Your task to perform on an android device: set the stopwatch Image 0: 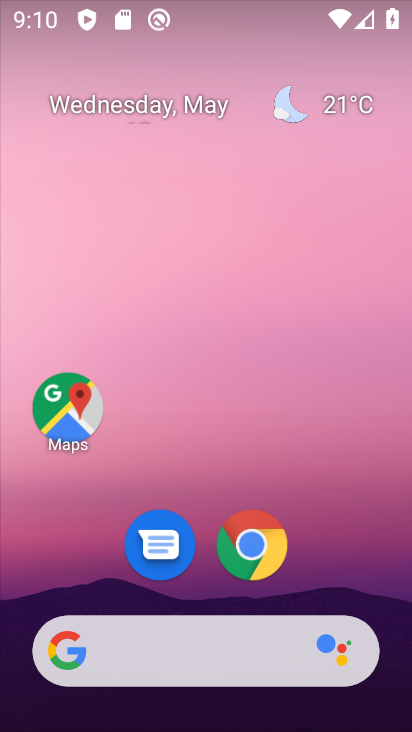
Step 0: drag from (308, 583) to (285, 12)
Your task to perform on an android device: set the stopwatch Image 1: 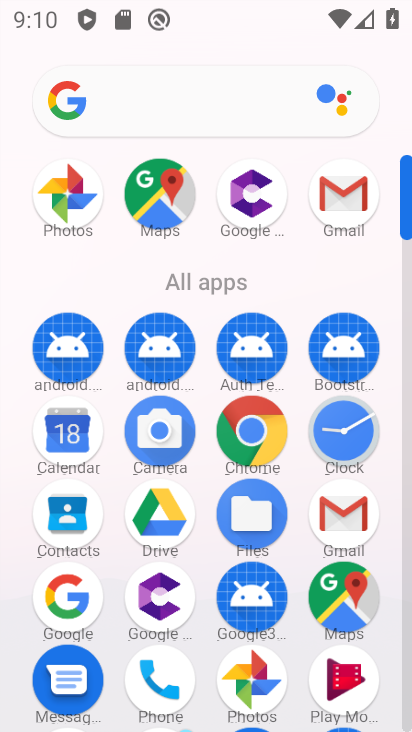
Step 1: click (341, 440)
Your task to perform on an android device: set the stopwatch Image 2: 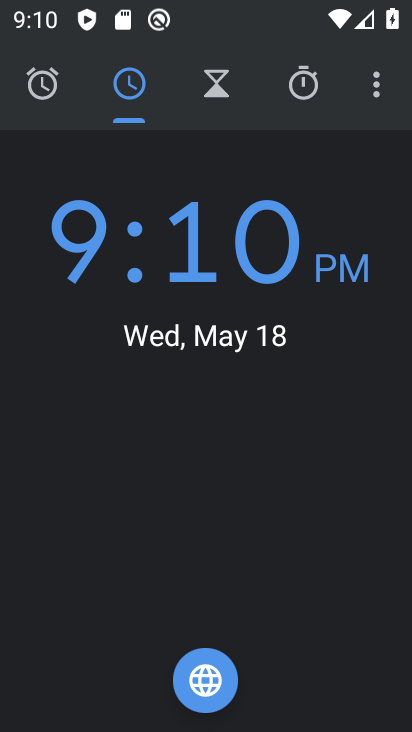
Step 2: click (304, 96)
Your task to perform on an android device: set the stopwatch Image 3: 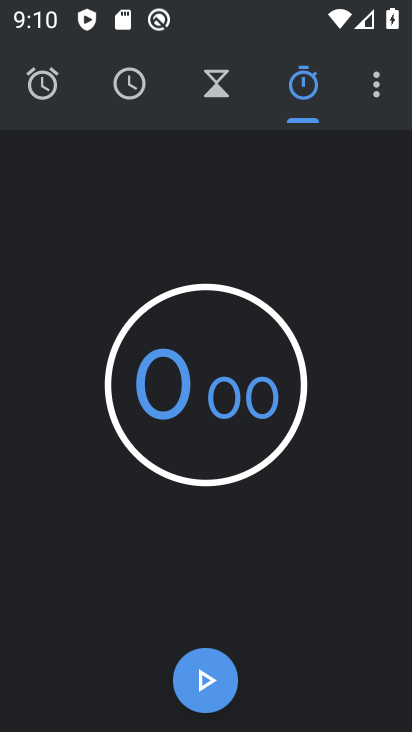
Step 3: click (218, 694)
Your task to perform on an android device: set the stopwatch Image 4: 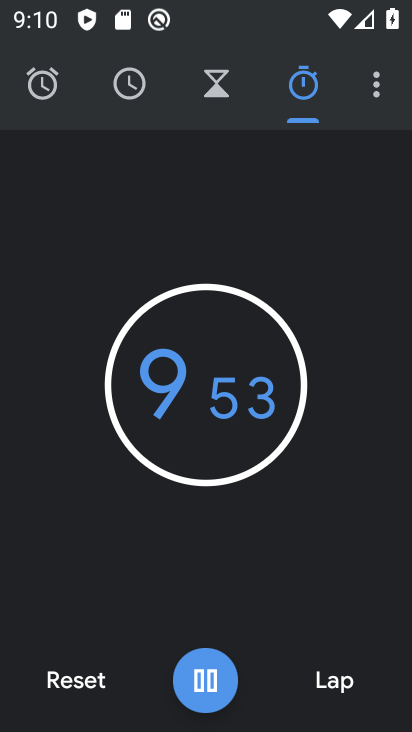
Step 4: task complete